Your task to perform on an android device: toggle airplane mode Image 0: 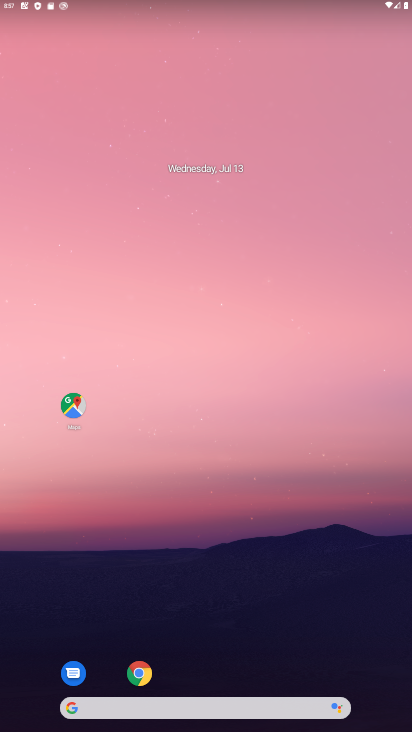
Step 0: drag from (195, 8) to (255, 693)
Your task to perform on an android device: toggle airplane mode Image 1: 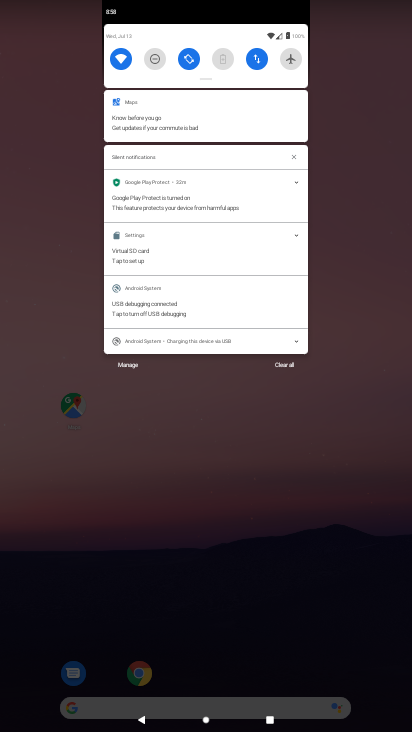
Step 1: click (293, 63)
Your task to perform on an android device: toggle airplane mode Image 2: 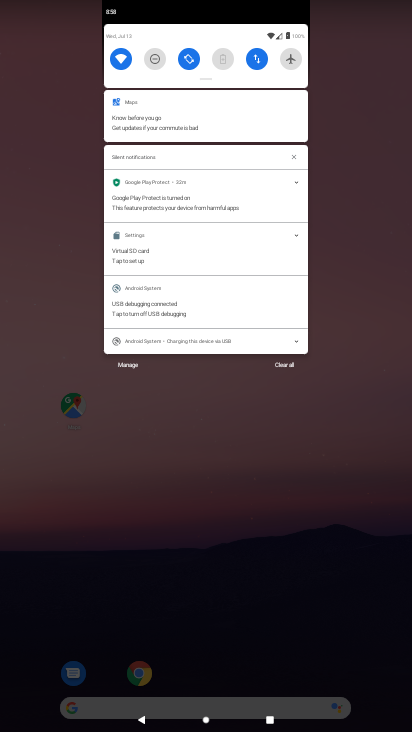
Step 2: click (293, 63)
Your task to perform on an android device: toggle airplane mode Image 3: 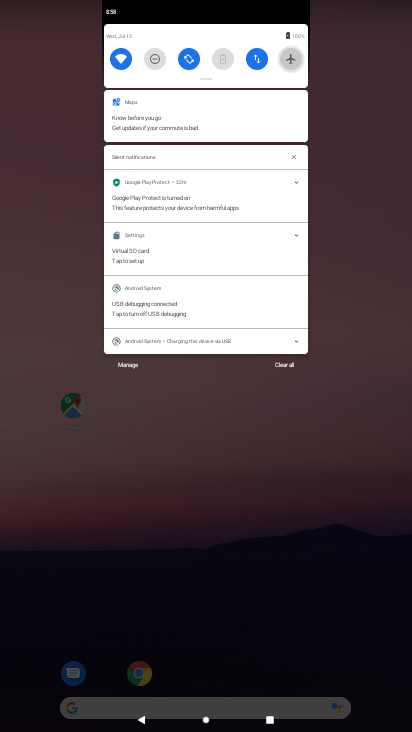
Step 3: click (293, 63)
Your task to perform on an android device: toggle airplane mode Image 4: 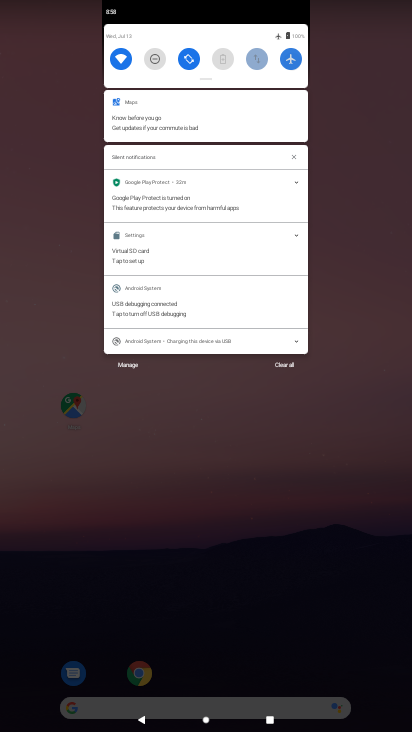
Step 4: click (293, 63)
Your task to perform on an android device: toggle airplane mode Image 5: 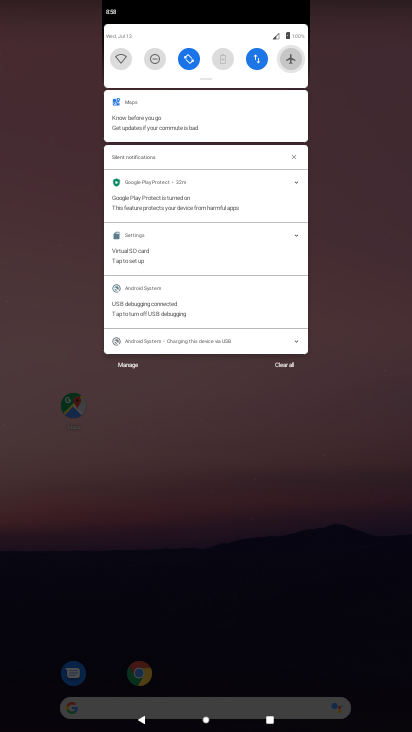
Step 5: click (293, 63)
Your task to perform on an android device: toggle airplane mode Image 6: 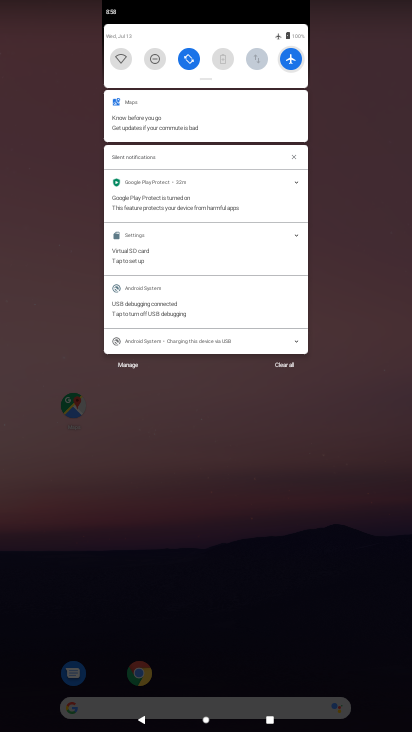
Step 6: click (293, 63)
Your task to perform on an android device: toggle airplane mode Image 7: 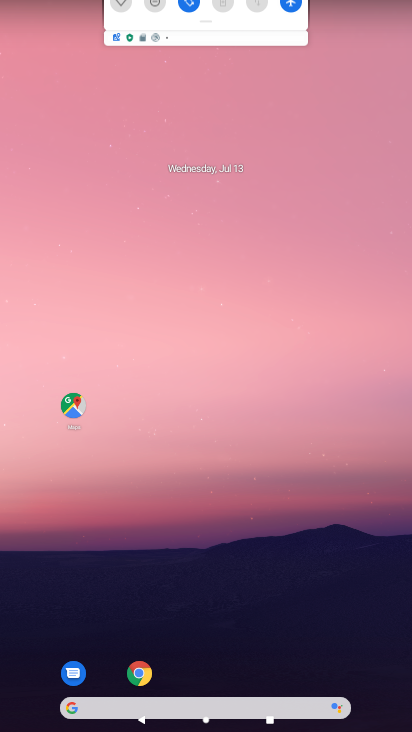
Step 7: click (293, 63)
Your task to perform on an android device: toggle airplane mode Image 8: 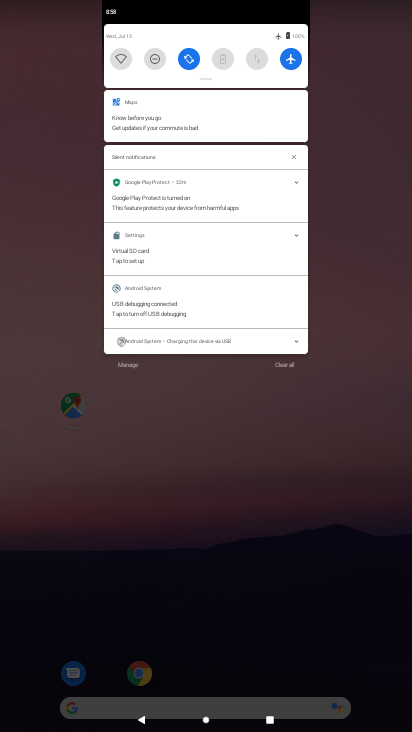
Step 8: click (293, 63)
Your task to perform on an android device: toggle airplane mode Image 9: 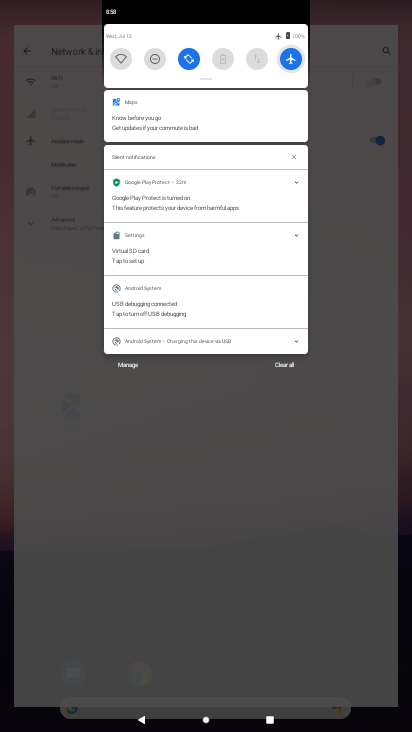
Step 9: click (293, 63)
Your task to perform on an android device: toggle airplane mode Image 10: 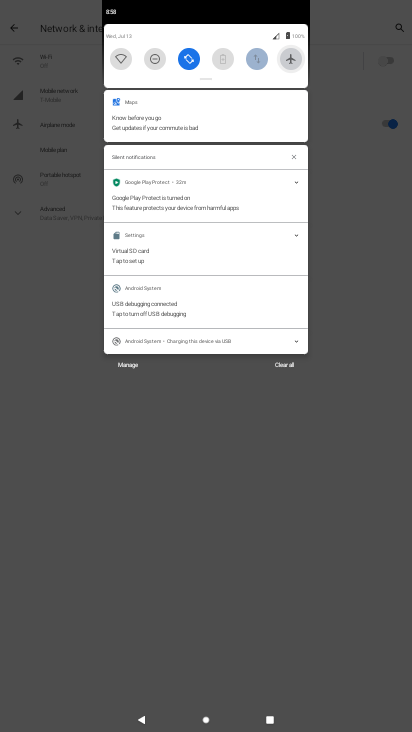
Step 10: click (293, 63)
Your task to perform on an android device: toggle airplane mode Image 11: 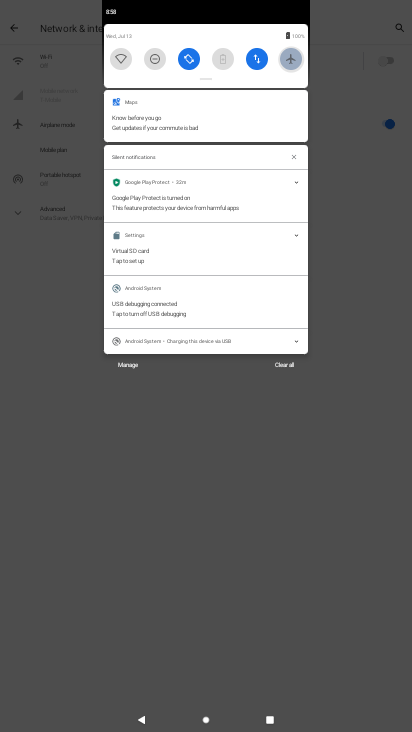
Step 11: click (293, 63)
Your task to perform on an android device: toggle airplane mode Image 12: 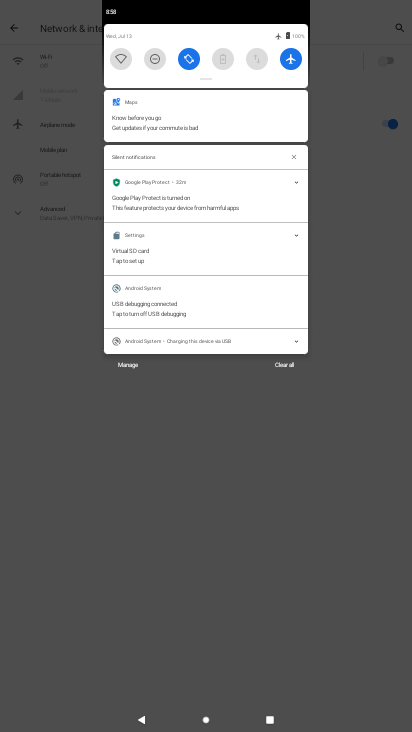
Step 12: click (293, 63)
Your task to perform on an android device: toggle airplane mode Image 13: 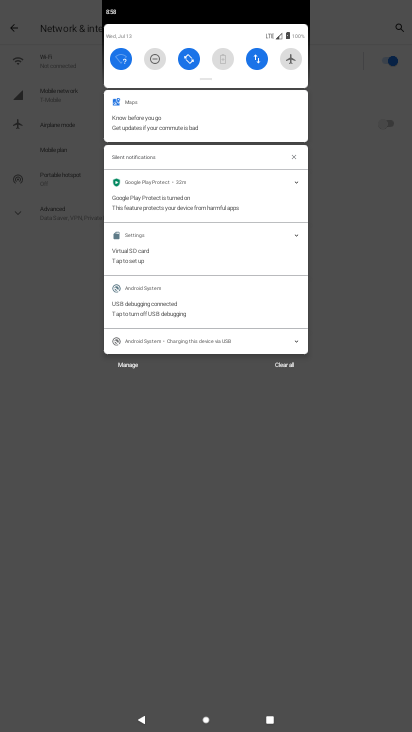
Step 13: task complete